Your task to perform on an android device: Do I have any events tomorrow? Image 0: 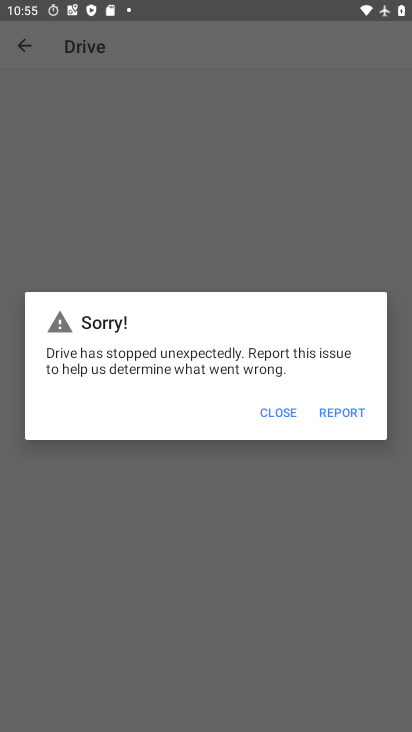
Step 0: press home button
Your task to perform on an android device: Do I have any events tomorrow? Image 1: 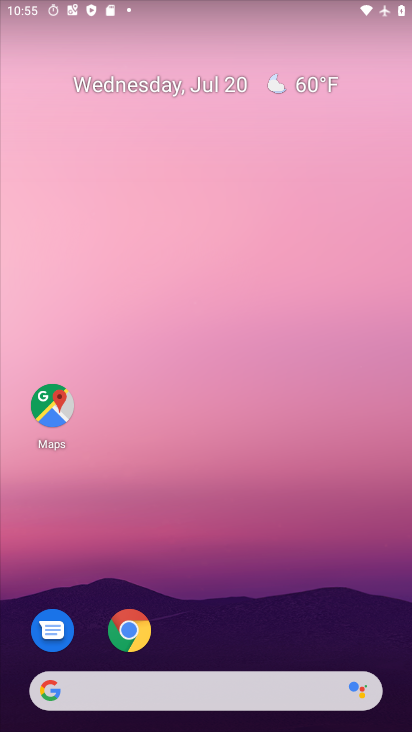
Step 1: drag from (213, 664) to (235, 127)
Your task to perform on an android device: Do I have any events tomorrow? Image 2: 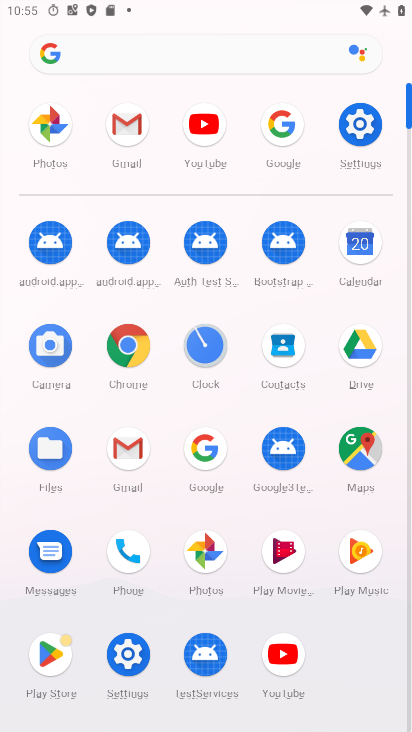
Step 2: click (355, 248)
Your task to perform on an android device: Do I have any events tomorrow? Image 3: 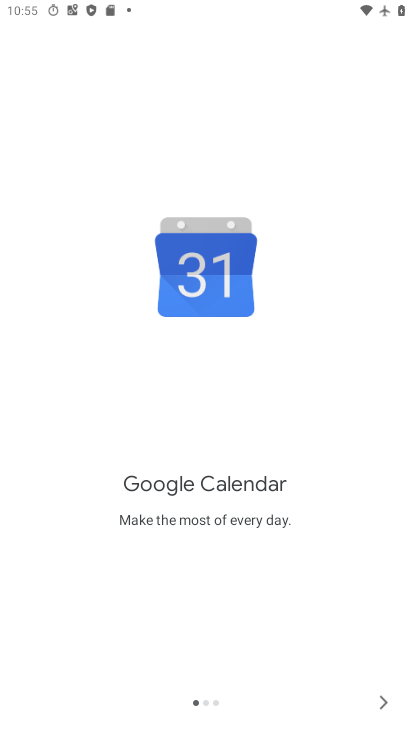
Step 3: click (376, 701)
Your task to perform on an android device: Do I have any events tomorrow? Image 4: 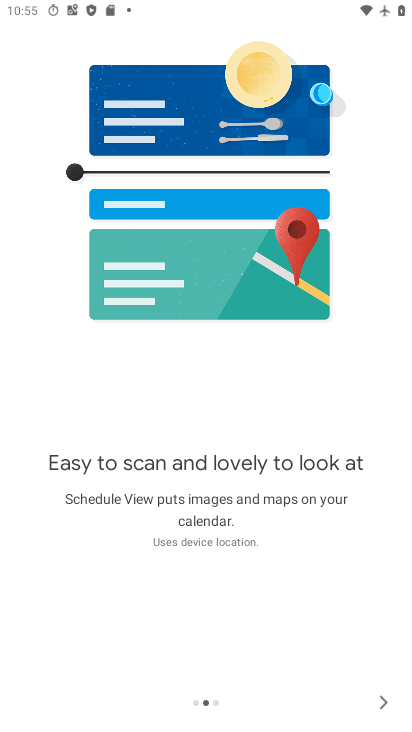
Step 4: click (376, 701)
Your task to perform on an android device: Do I have any events tomorrow? Image 5: 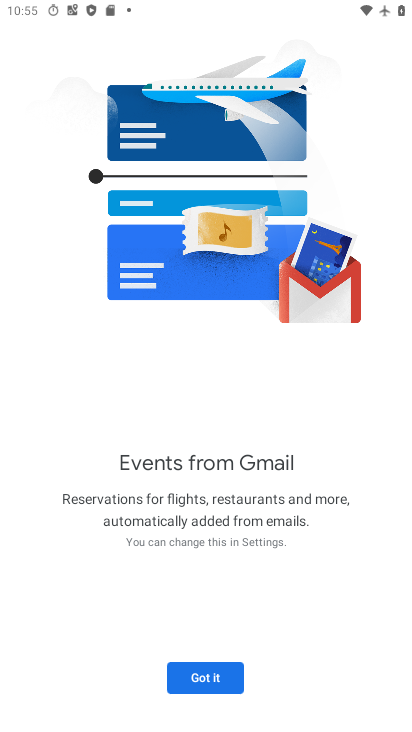
Step 5: click (213, 681)
Your task to perform on an android device: Do I have any events tomorrow? Image 6: 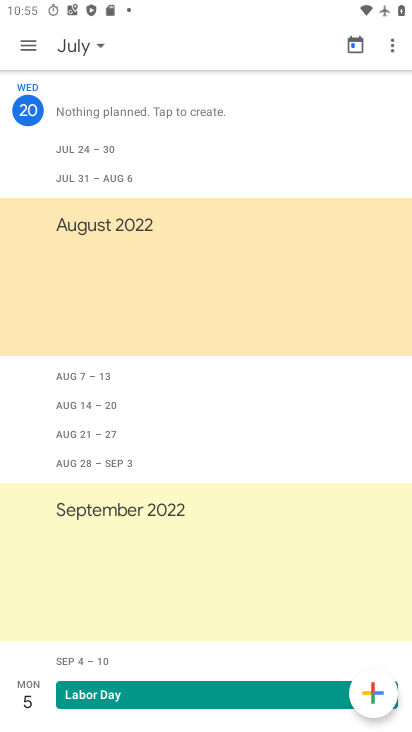
Step 6: click (86, 45)
Your task to perform on an android device: Do I have any events tomorrow? Image 7: 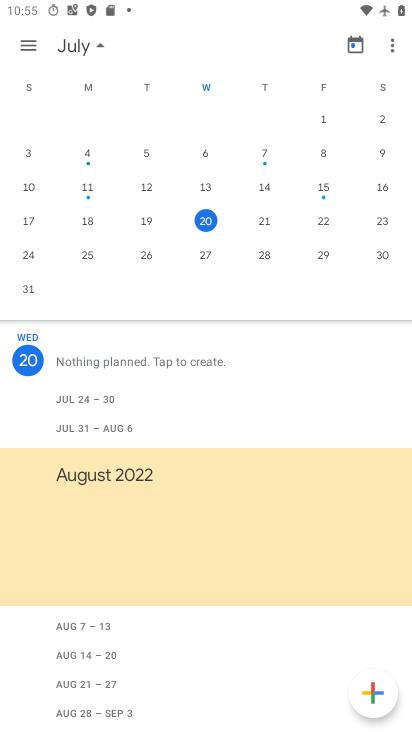
Step 7: click (262, 220)
Your task to perform on an android device: Do I have any events tomorrow? Image 8: 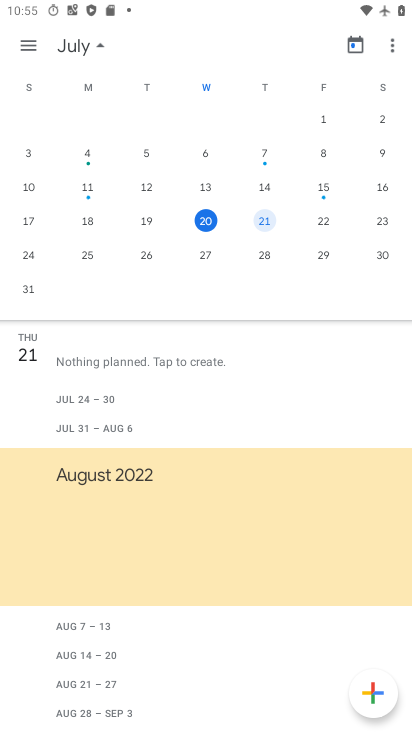
Step 8: task complete